Your task to perform on an android device: Add macbook pro to the cart on amazon.com Image 0: 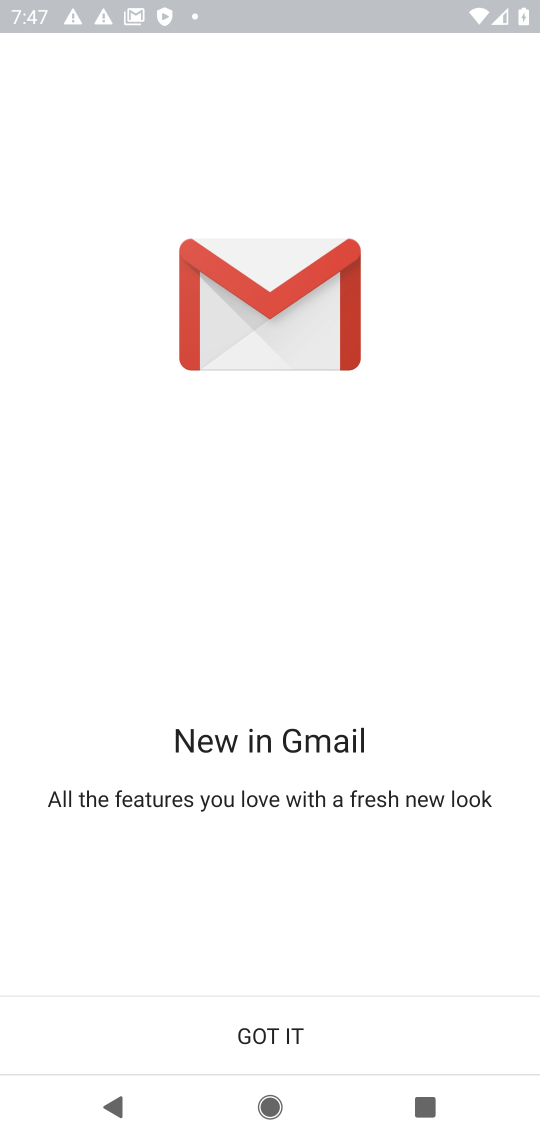
Step 0: press home button
Your task to perform on an android device: Add macbook pro to the cart on amazon.com Image 1: 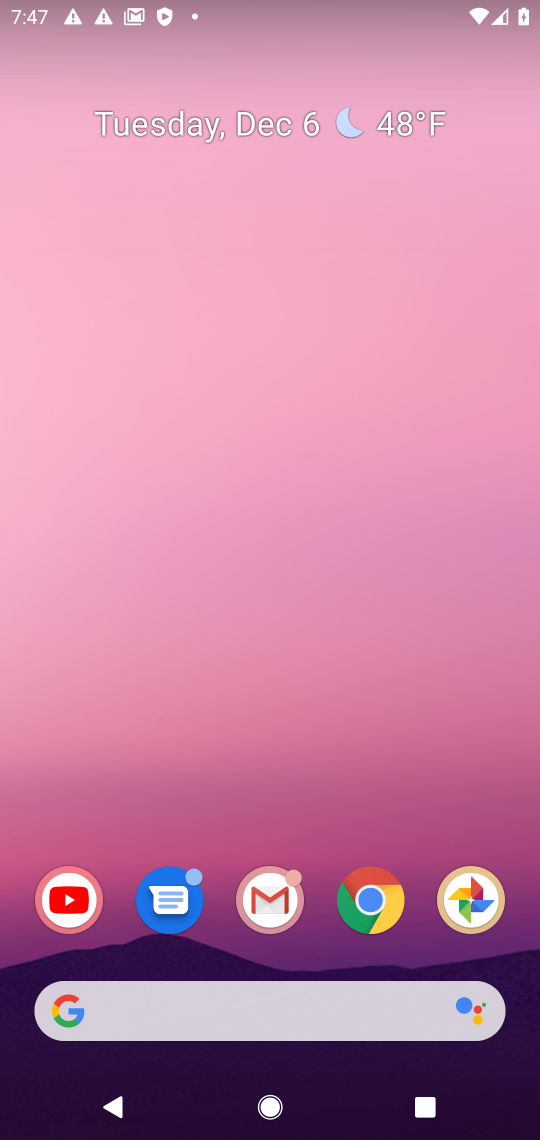
Step 1: drag from (283, 996) to (305, 542)
Your task to perform on an android device: Add macbook pro to the cart on amazon.com Image 2: 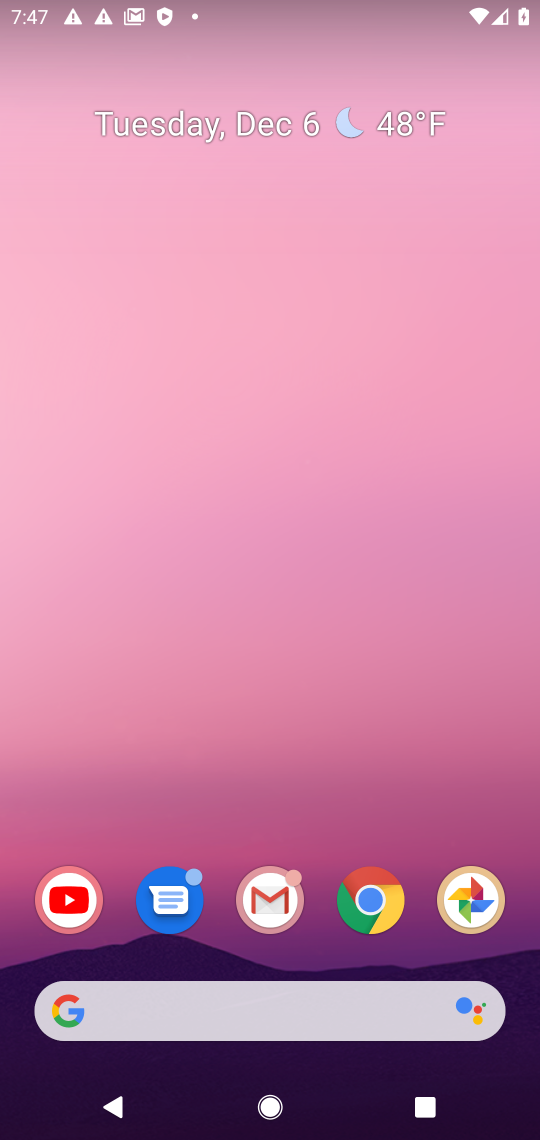
Step 2: drag from (204, 864) to (249, 263)
Your task to perform on an android device: Add macbook pro to the cart on amazon.com Image 3: 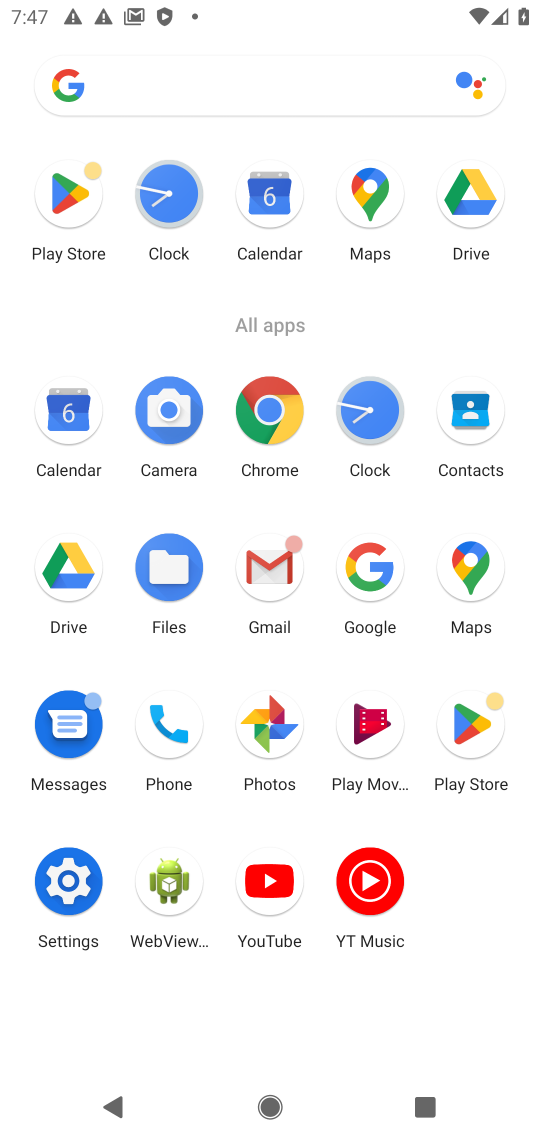
Step 3: click (361, 567)
Your task to perform on an android device: Add macbook pro to the cart on amazon.com Image 4: 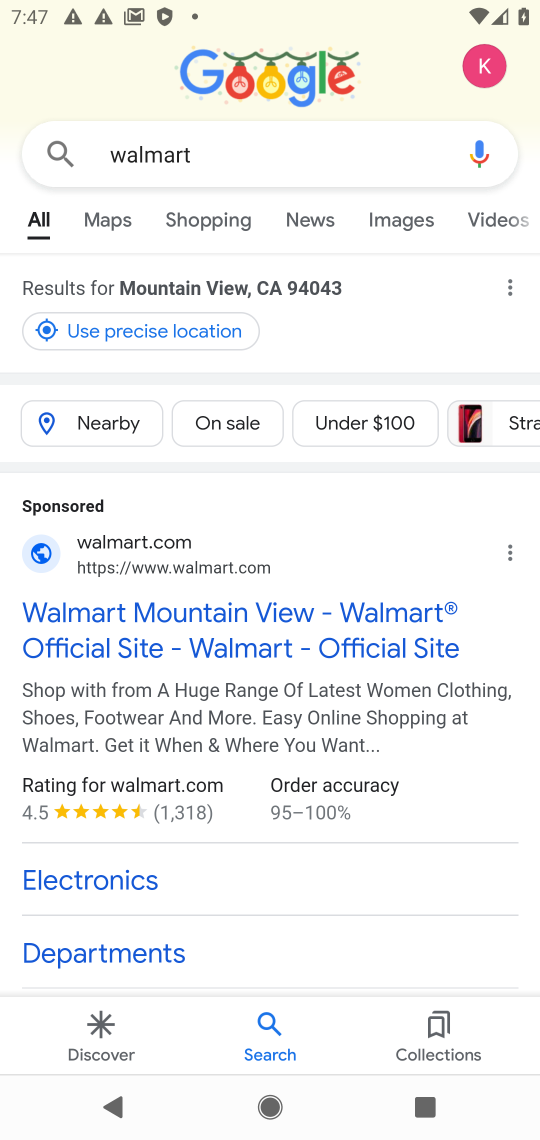
Step 4: click (195, 162)
Your task to perform on an android device: Add macbook pro to the cart on amazon.com Image 5: 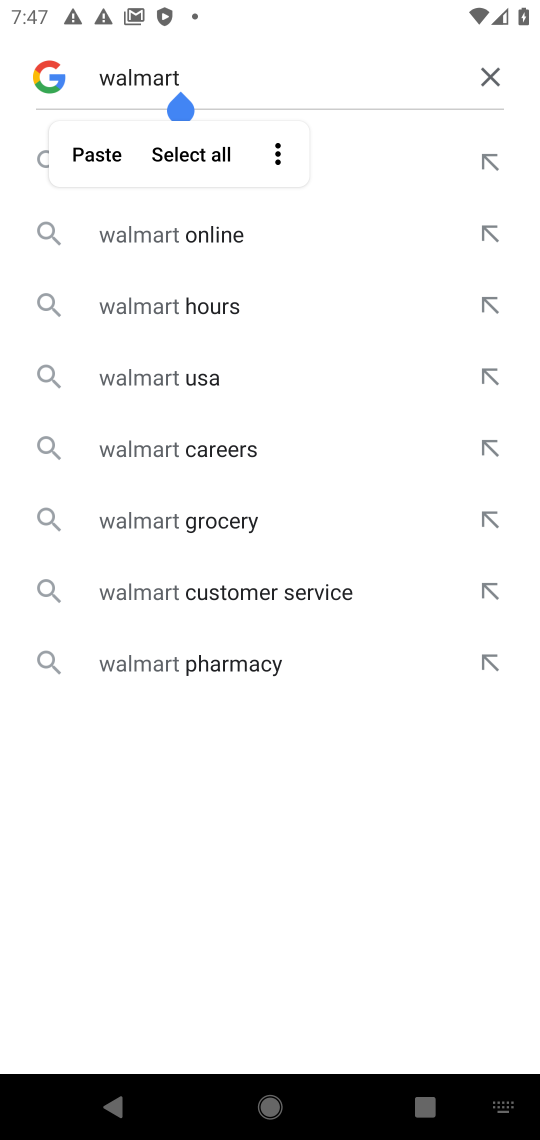
Step 5: click (479, 74)
Your task to perform on an android device: Add macbook pro to the cart on amazon.com Image 6: 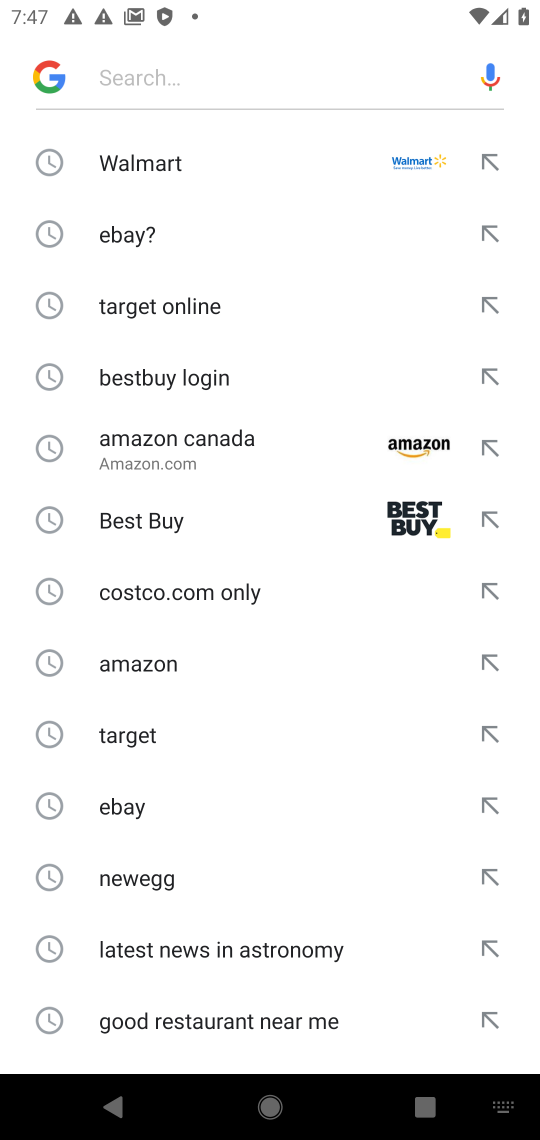
Step 6: click (492, 451)
Your task to perform on an android device: Add macbook pro to the cart on amazon.com Image 7: 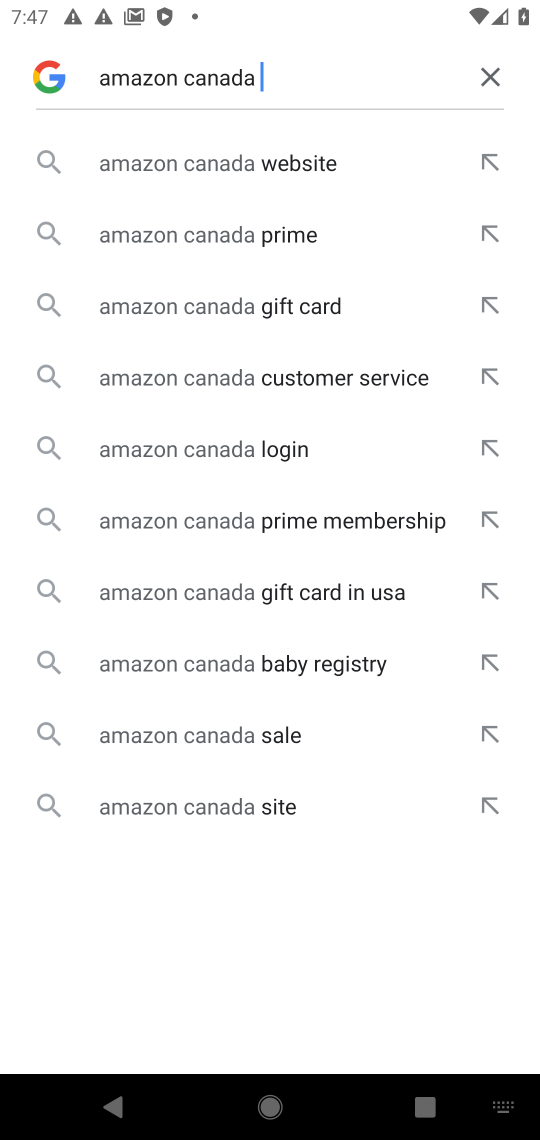
Step 7: click (492, 84)
Your task to perform on an android device: Add macbook pro to the cart on amazon.com Image 8: 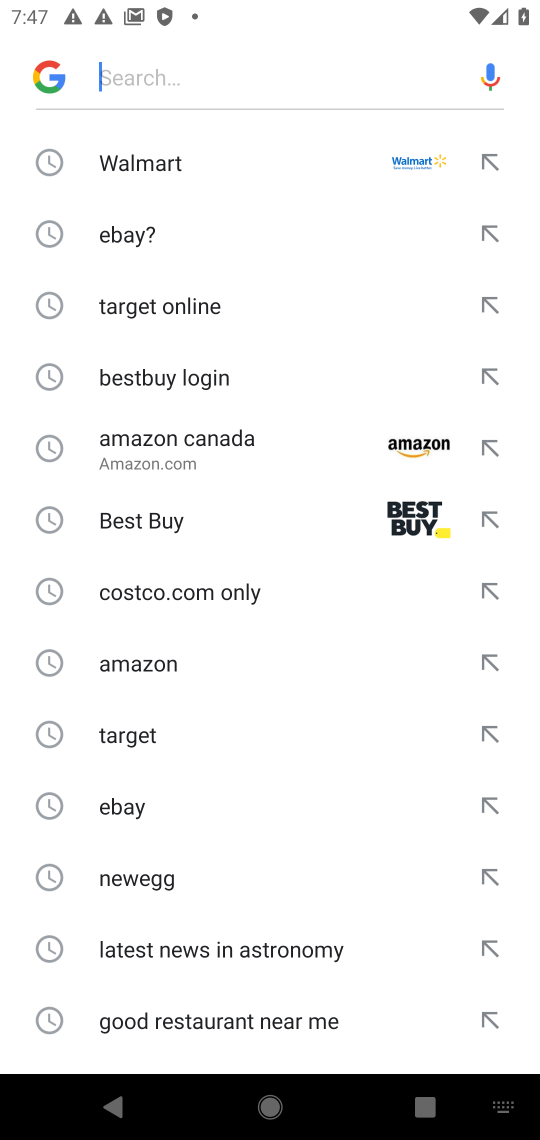
Step 8: click (195, 437)
Your task to perform on an android device: Add macbook pro to the cart on amazon.com Image 9: 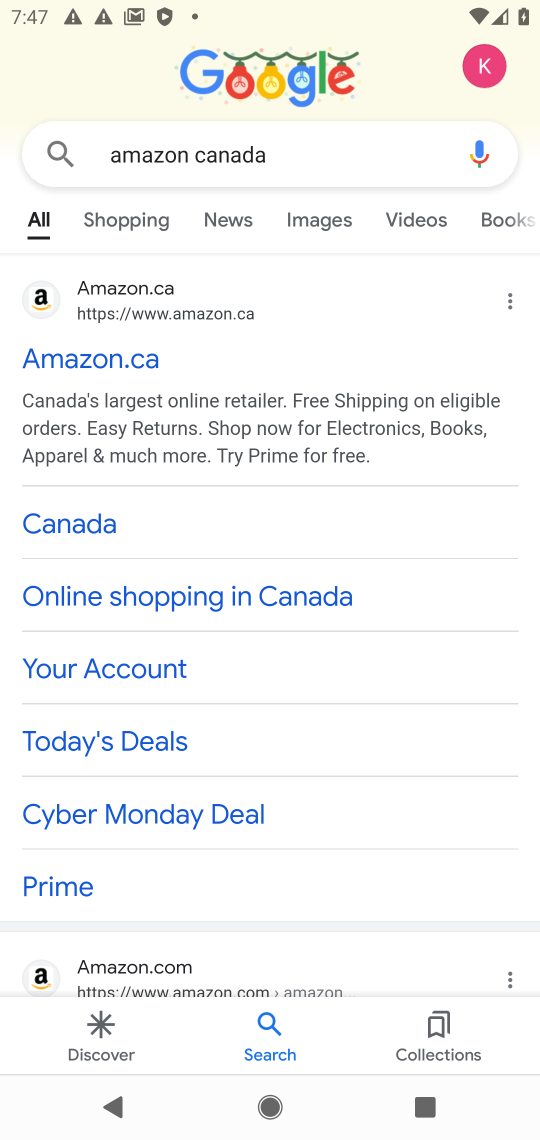
Step 9: click (71, 363)
Your task to perform on an android device: Add macbook pro to the cart on amazon.com Image 10: 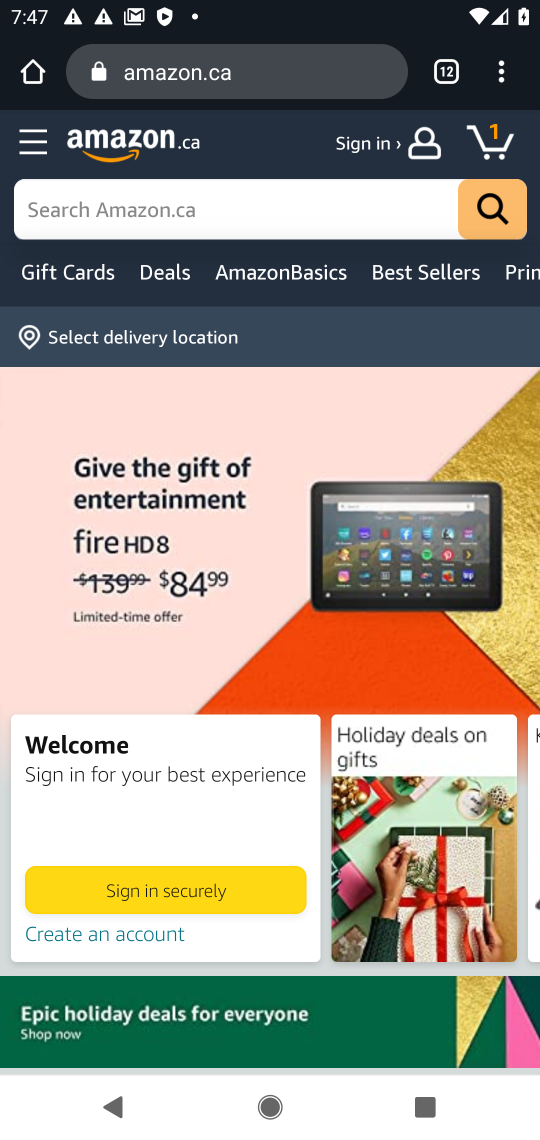
Step 10: click (172, 205)
Your task to perform on an android device: Add macbook pro to the cart on amazon.com Image 11: 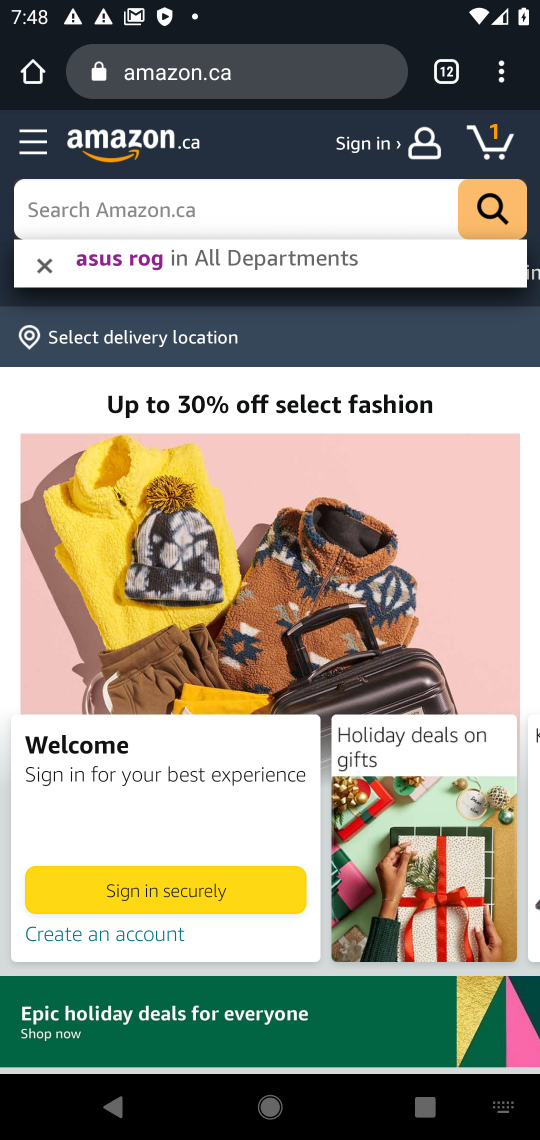
Step 11: type "macbook pro"
Your task to perform on an android device: Add macbook pro to the cart on amazon.com Image 12: 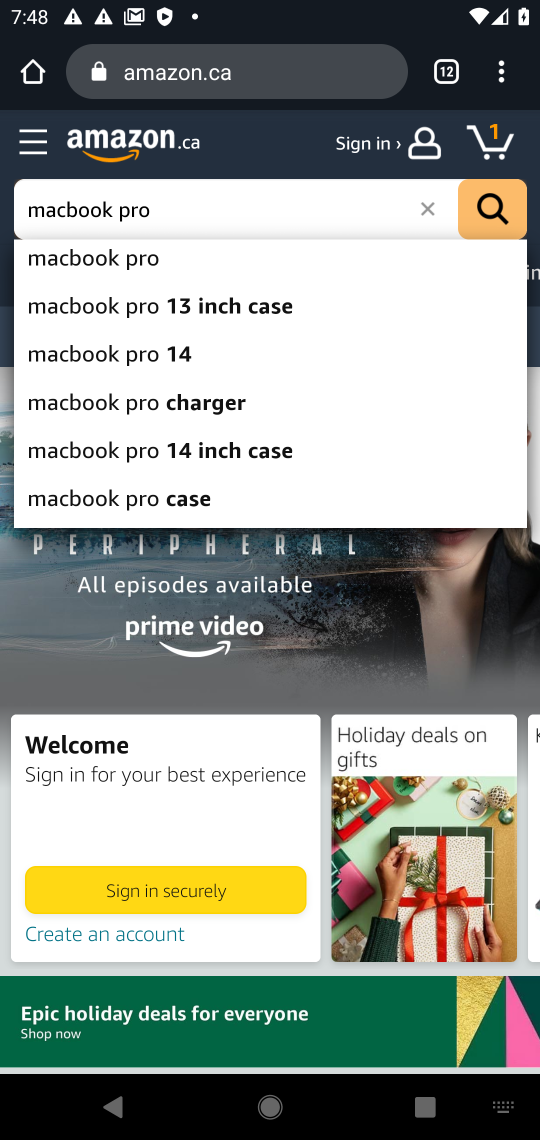
Step 12: click (100, 270)
Your task to perform on an android device: Add macbook pro to the cart on amazon.com Image 13: 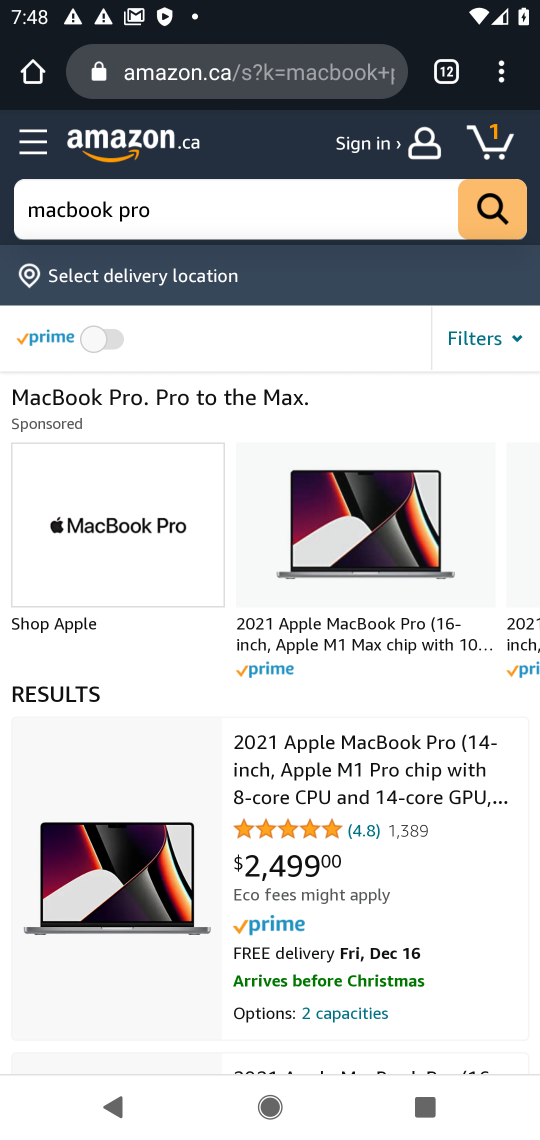
Step 13: drag from (350, 978) to (347, 535)
Your task to perform on an android device: Add macbook pro to the cart on amazon.com Image 14: 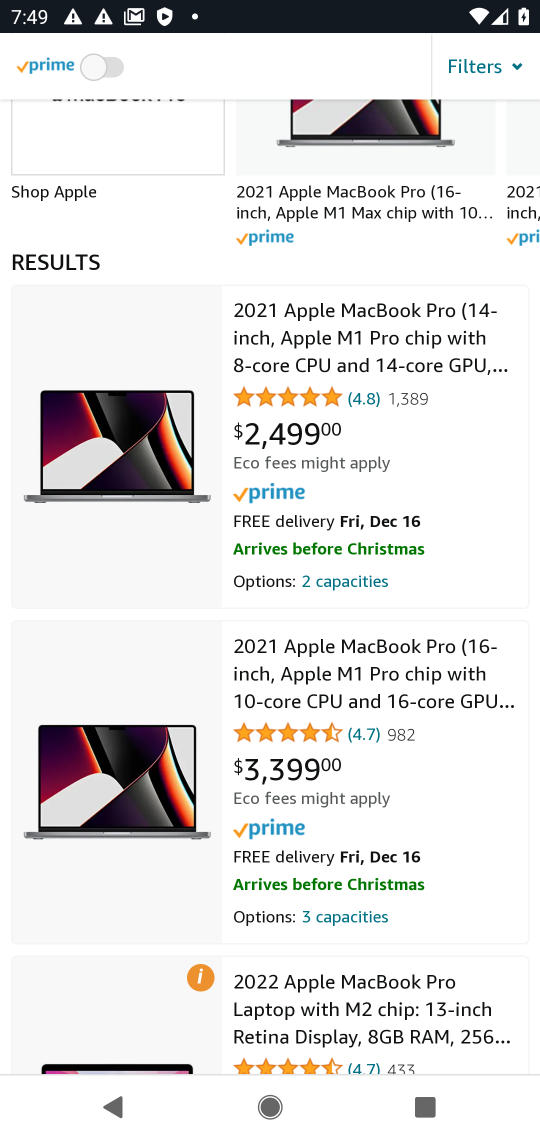
Step 14: drag from (301, 325) to (310, 772)
Your task to perform on an android device: Add macbook pro to the cart on amazon.com Image 15: 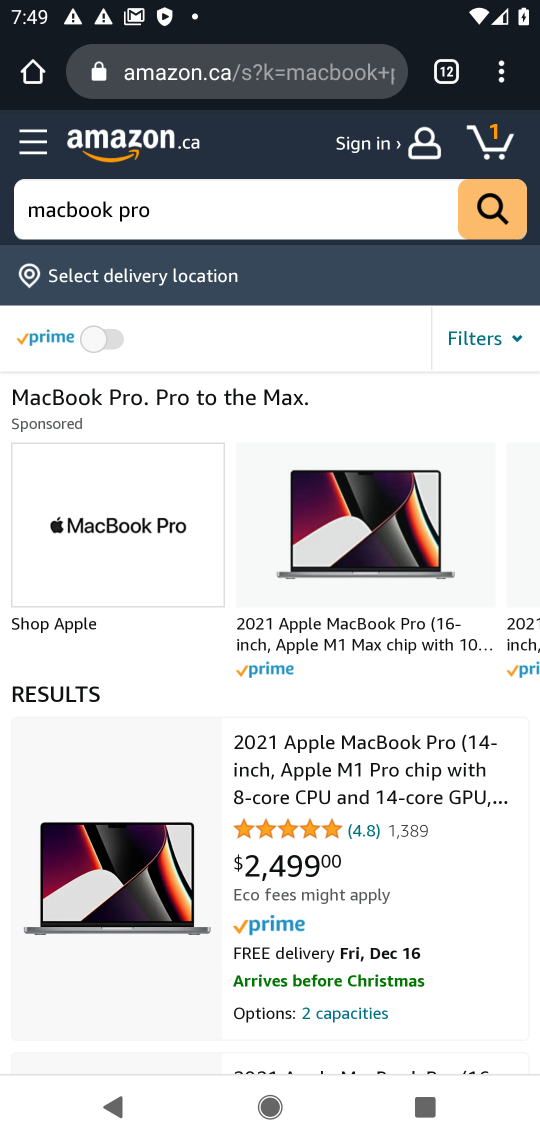
Step 15: click (322, 833)
Your task to perform on an android device: Add macbook pro to the cart on amazon.com Image 16: 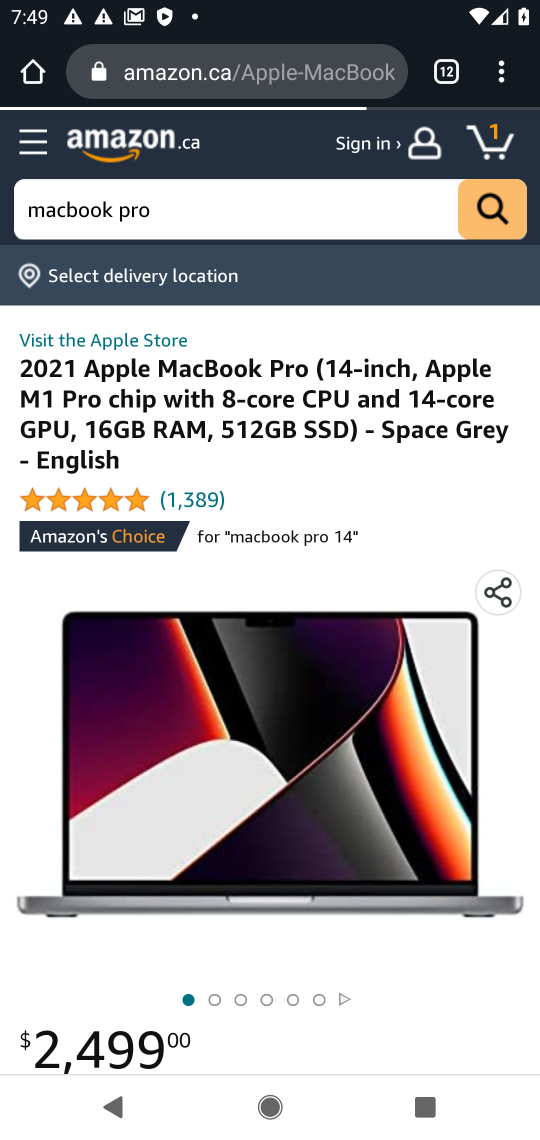
Step 16: drag from (254, 965) to (318, 411)
Your task to perform on an android device: Add macbook pro to the cart on amazon.com Image 17: 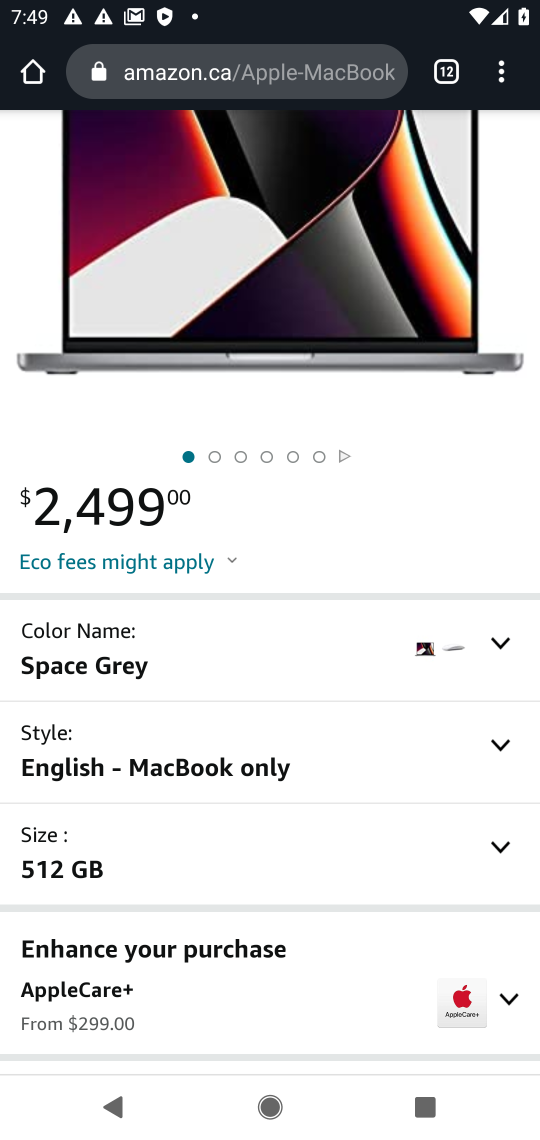
Step 17: drag from (256, 900) to (241, 476)
Your task to perform on an android device: Add macbook pro to the cart on amazon.com Image 18: 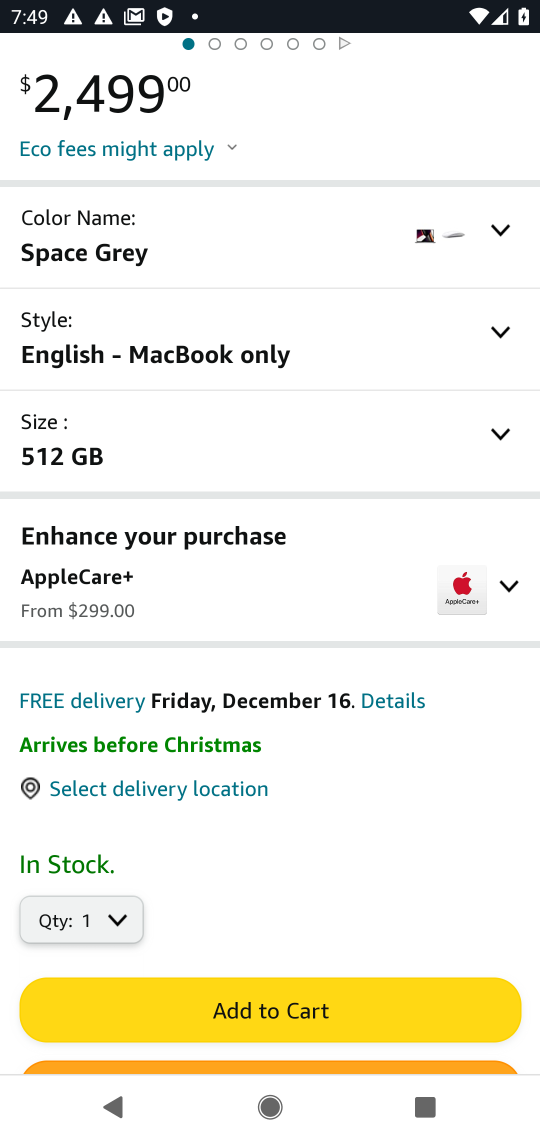
Step 18: click (255, 1016)
Your task to perform on an android device: Add macbook pro to the cart on amazon.com Image 19: 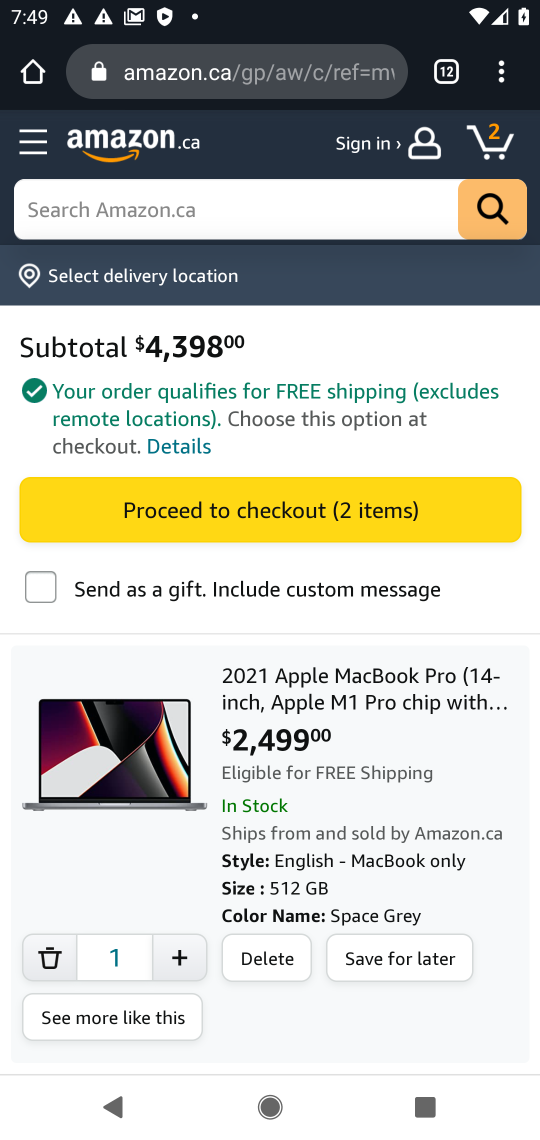
Step 19: task complete